Your task to perform on an android device: toggle wifi Image 0: 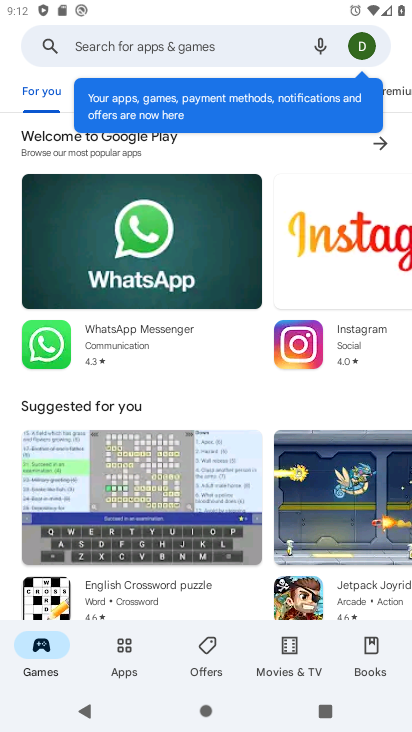
Step 0: press home button
Your task to perform on an android device: toggle wifi Image 1: 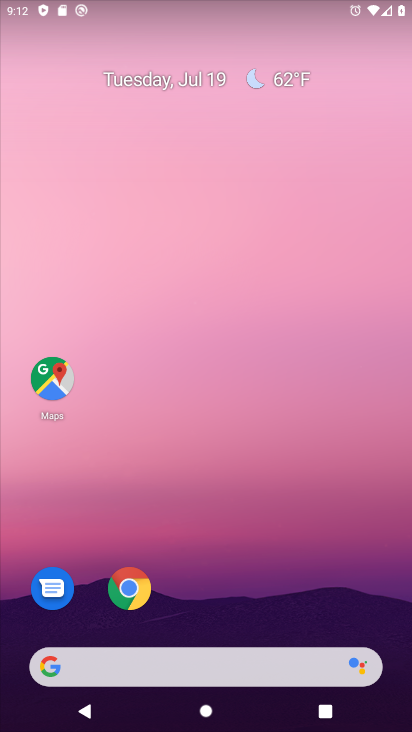
Step 1: drag from (304, 538) to (227, 9)
Your task to perform on an android device: toggle wifi Image 2: 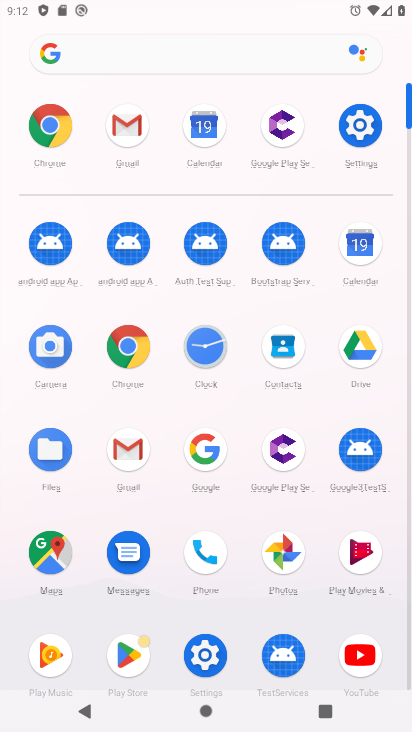
Step 2: click (362, 126)
Your task to perform on an android device: toggle wifi Image 3: 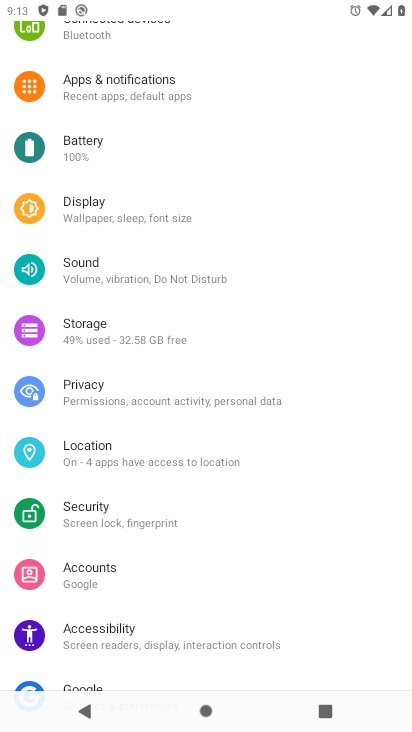
Step 3: drag from (224, 266) to (281, 729)
Your task to perform on an android device: toggle wifi Image 4: 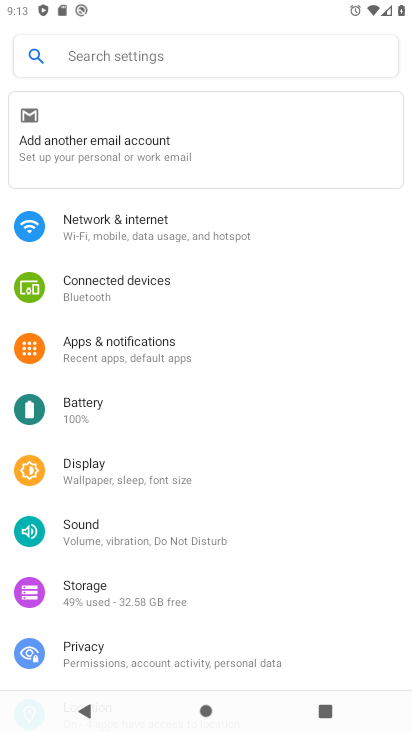
Step 4: click (167, 232)
Your task to perform on an android device: toggle wifi Image 5: 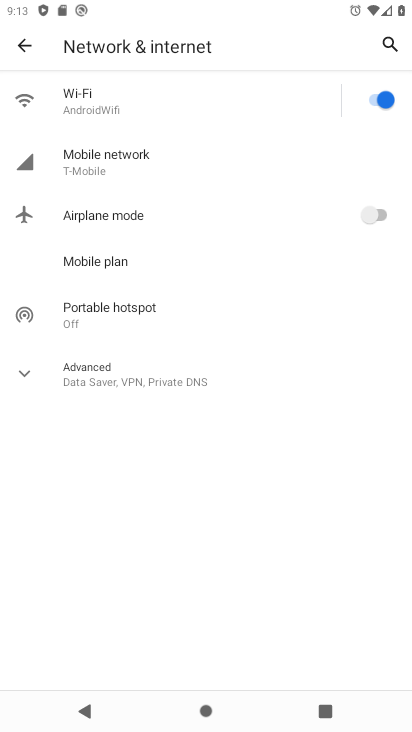
Step 5: click (387, 97)
Your task to perform on an android device: toggle wifi Image 6: 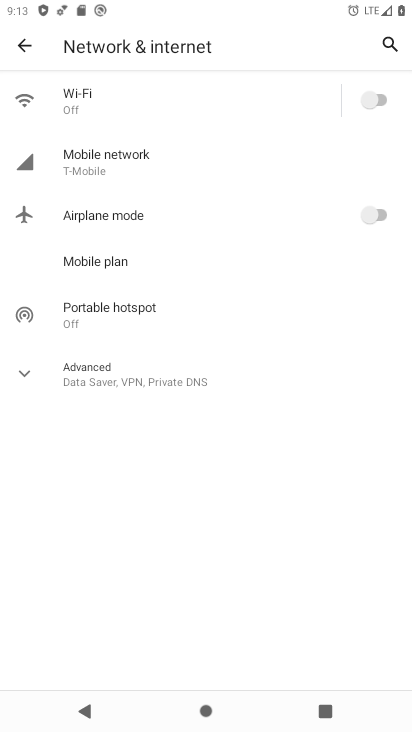
Step 6: task complete